Your task to perform on an android device: toggle javascript in the chrome app Image 0: 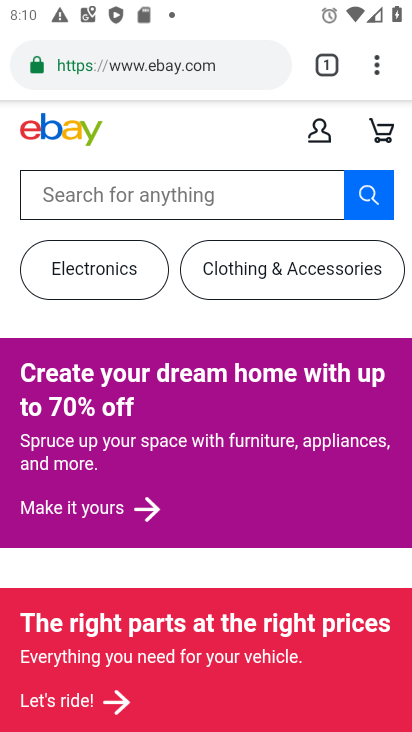
Step 0: press home button
Your task to perform on an android device: toggle javascript in the chrome app Image 1: 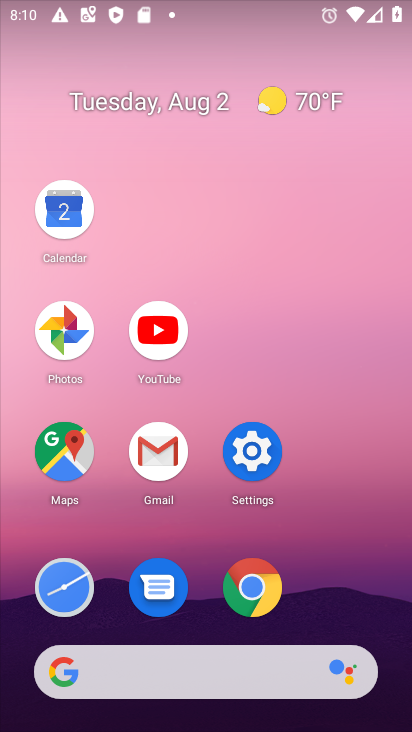
Step 1: click (254, 595)
Your task to perform on an android device: toggle javascript in the chrome app Image 2: 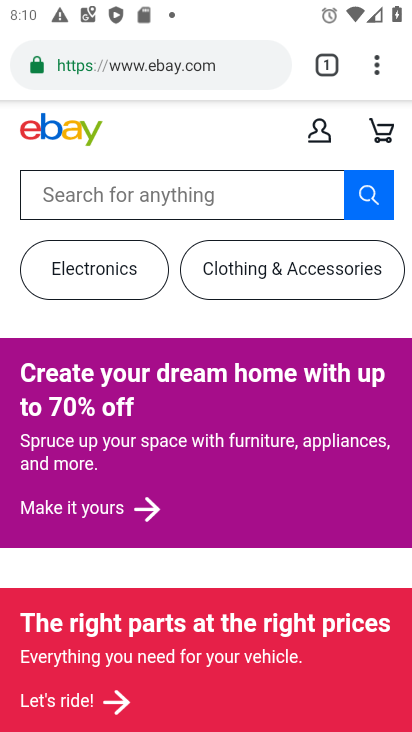
Step 2: click (376, 64)
Your task to perform on an android device: toggle javascript in the chrome app Image 3: 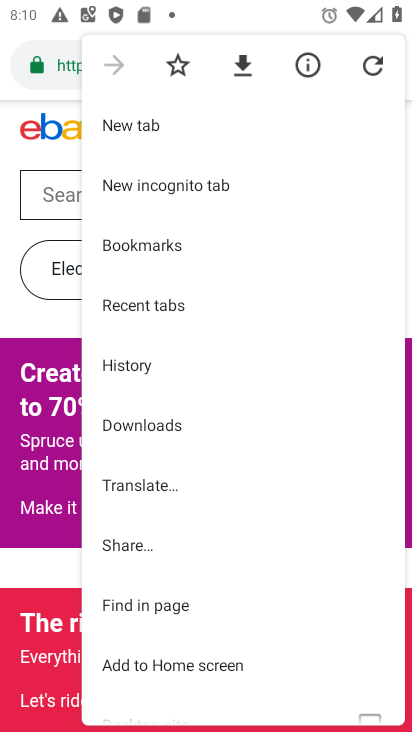
Step 3: drag from (211, 581) to (186, 156)
Your task to perform on an android device: toggle javascript in the chrome app Image 4: 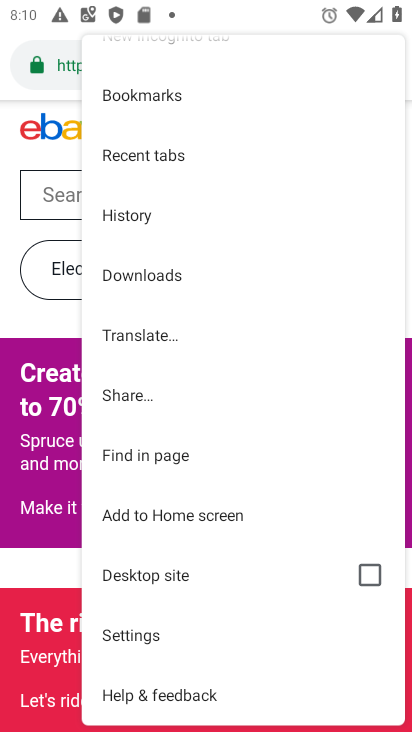
Step 4: click (124, 638)
Your task to perform on an android device: toggle javascript in the chrome app Image 5: 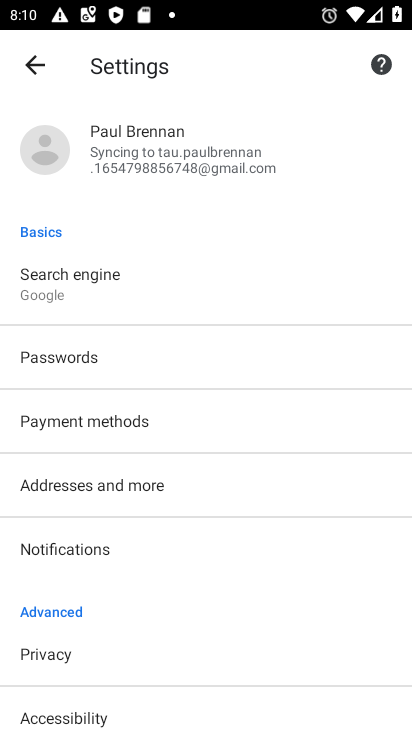
Step 5: drag from (233, 599) to (192, 314)
Your task to perform on an android device: toggle javascript in the chrome app Image 6: 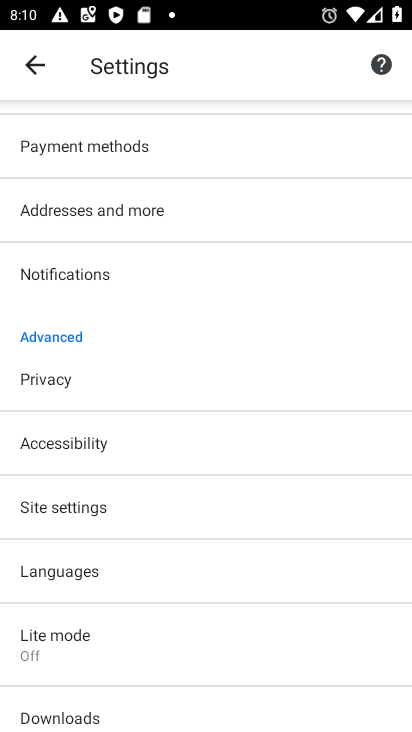
Step 6: click (59, 512)
Your task to perform on an android device: toggle javascript in the chrome app Image 7: 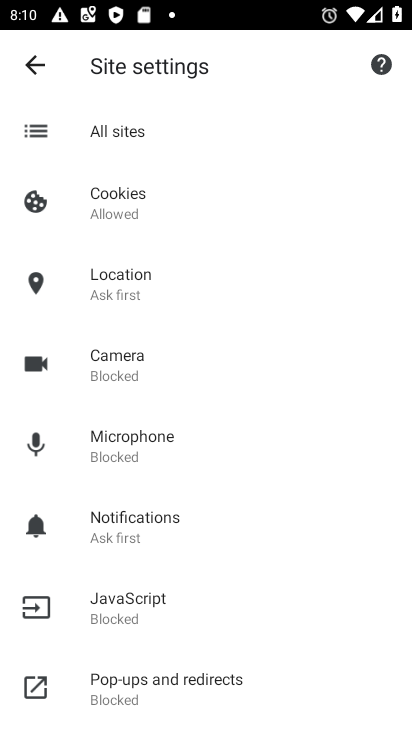
Step 7: click (132, 600)
Your task to perform on an android device: toggle javascript in the chrome app Image 8: 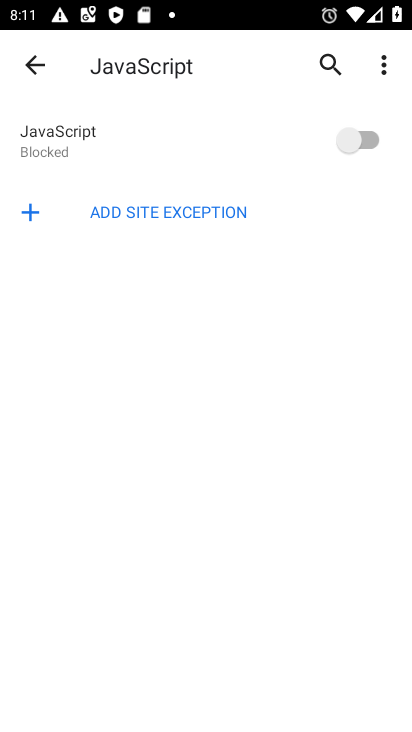
Step 8: click (356, 138)
Your task to perform on an android device: toggle javascript in the chrome app Image 9: 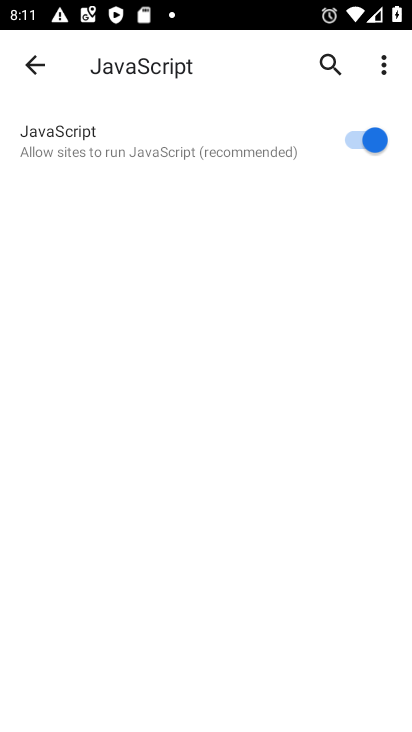
Step 9: task complete